Your task to perform on an android device: What's on my calendar today? Image 0: 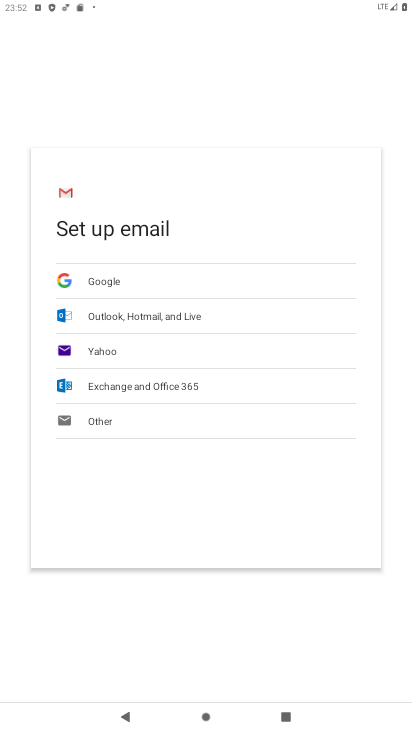
Step 0: press home button
Your task to perform on an android device: What's on my calendar today? Image 1: 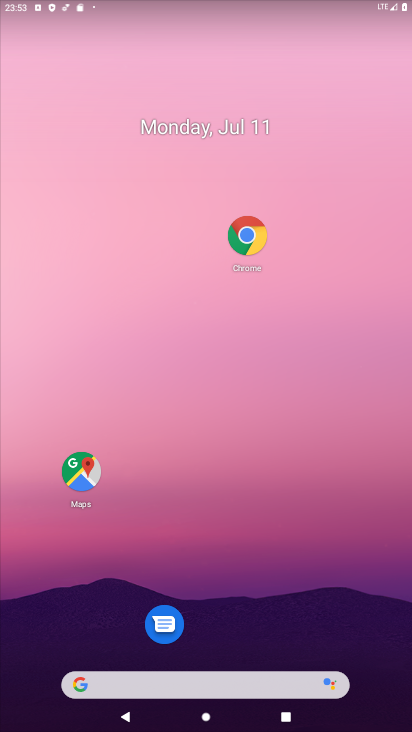
Step 1: drag from (224, 618) to (226, 213)
Your task to perform on an android device: What's on my calendar today? Image 2: 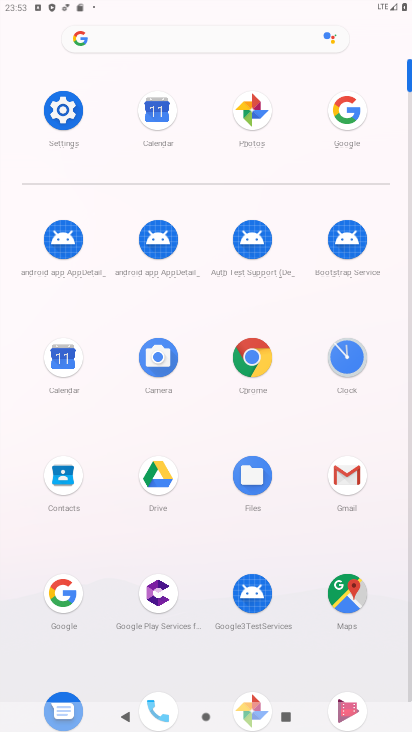
Step 2: click (152, 123)
Your task to perform on an android device: What's on my calendar today? Image 3: 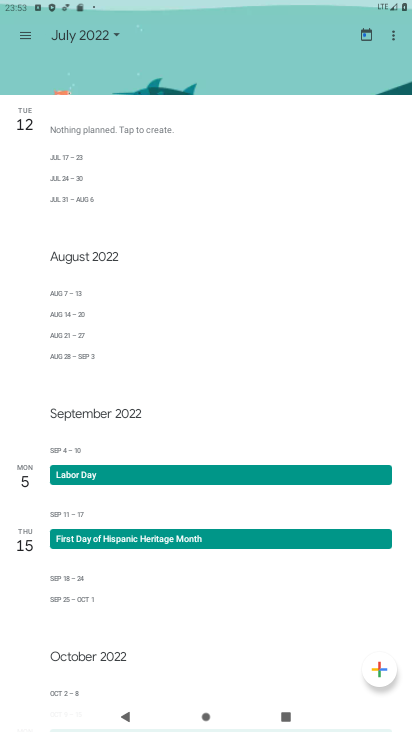
Step 3: click (108, 44)
Your task to perform on an android device: What's on my calendar today? Image 4: 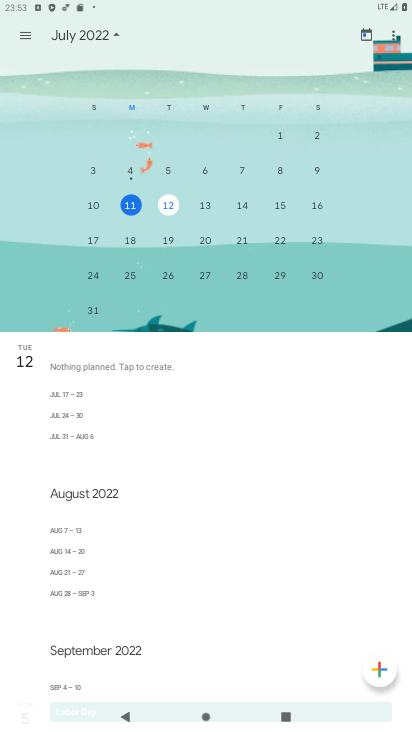
Step 4: click (141, 197)
Your task to perform on an android device: What's on my calendar today? Image 5: 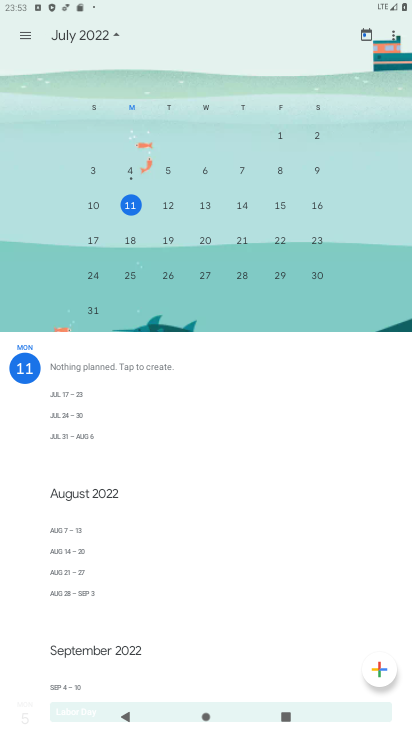
Step 5: task complete